Your task to perform on an android device: Is it going to rain today? Image 0: 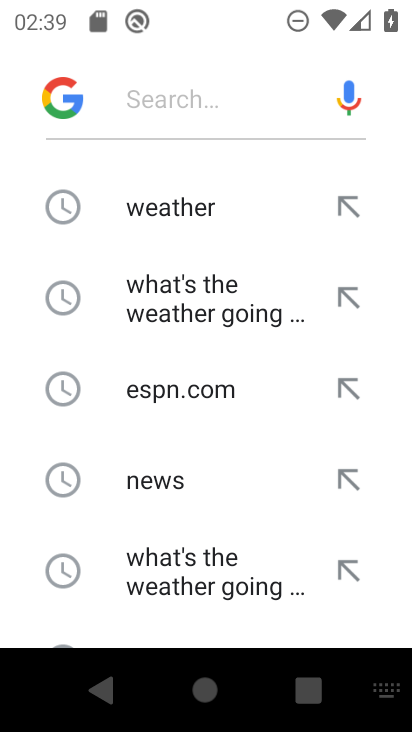
Step 0: type "Is it going to rain today?"
Your task to perform on an android device: Is it going to rain today? Image 1: 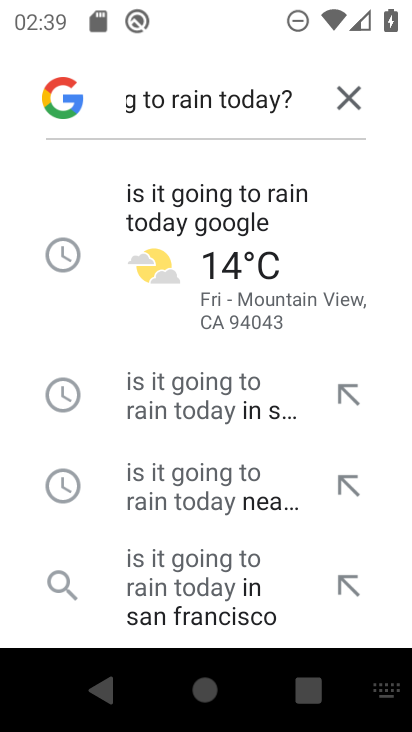
Step 1: click (246, 208)
Your task to perform on an android device: Is it going to rain today? Image 2: 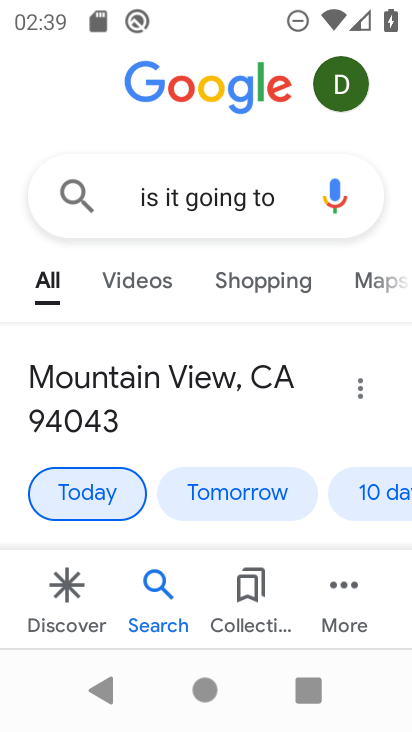
Step 2: task complete